Your task to perform on an android device: turn off location Image 0: 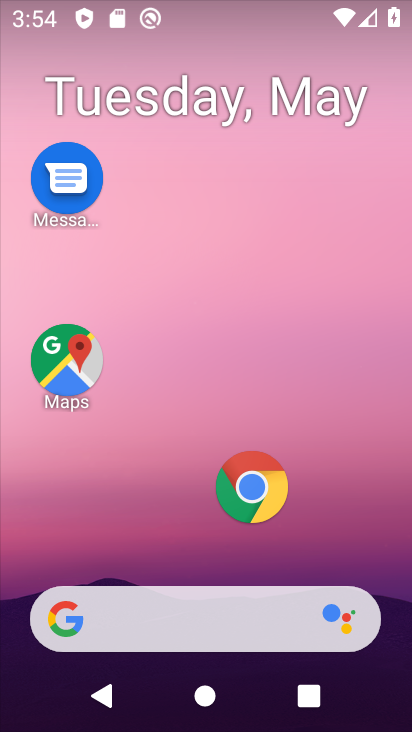
Step 0: drag from (314, 567) to (236, 709)
Your task to perform on an android device: turn off location Image 1: 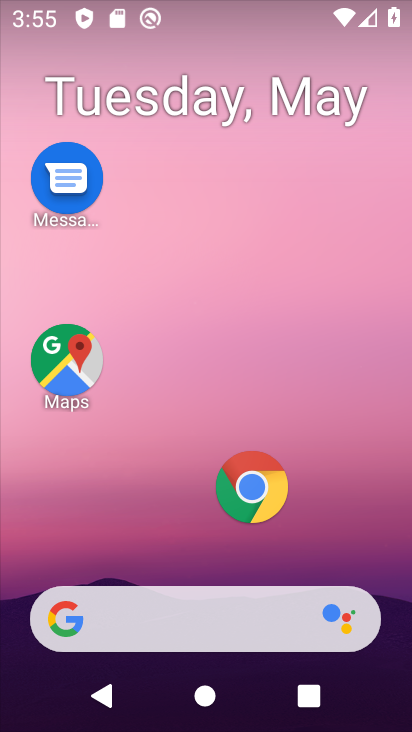
Step 1: drag from (211, 560) to (110, 24)
Your task to perform on an android device: turn off location Image 2: 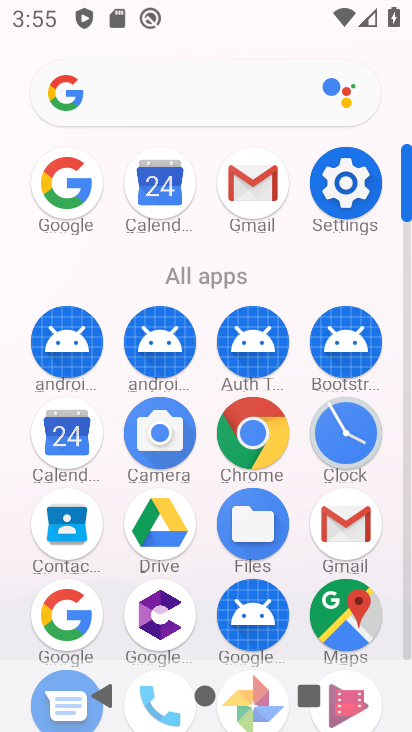
Step 2: click (350, 171)
Your task to perform on an android device: turn off location Image 3: 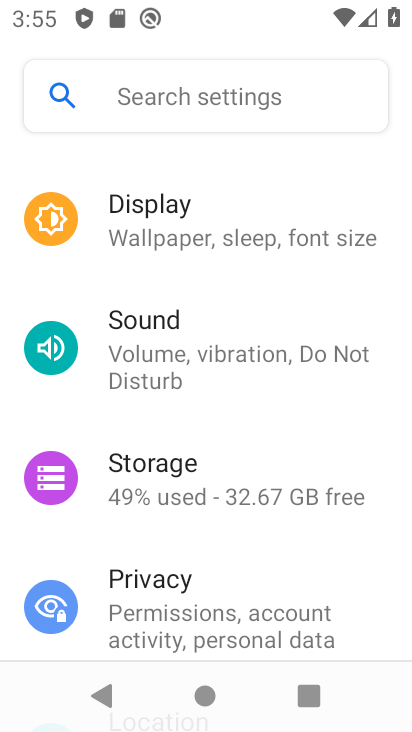
Step 3: drag from (185, 516) to (204, 15)
Your task to perform on an android device: turn off location Image 4: 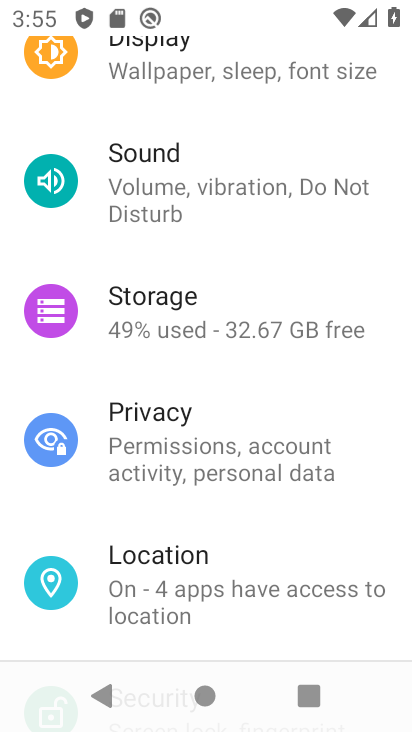
Step 4: click (155, 583)
Your task to perform on an android device: turn off location Image 5: 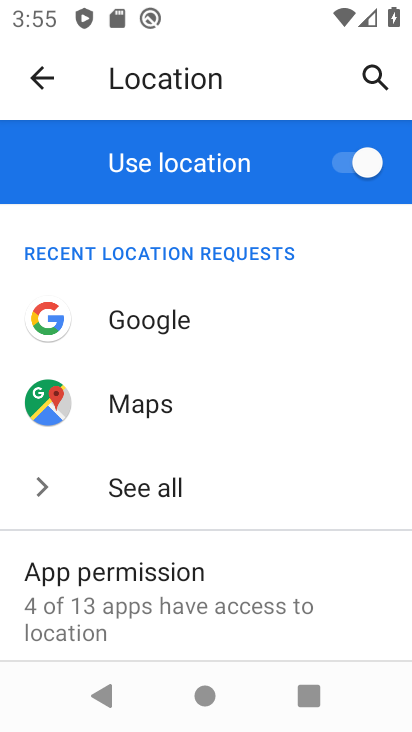
Step 5: click (330, 160)
Your task to perform on an android device: turn off location Image 6: 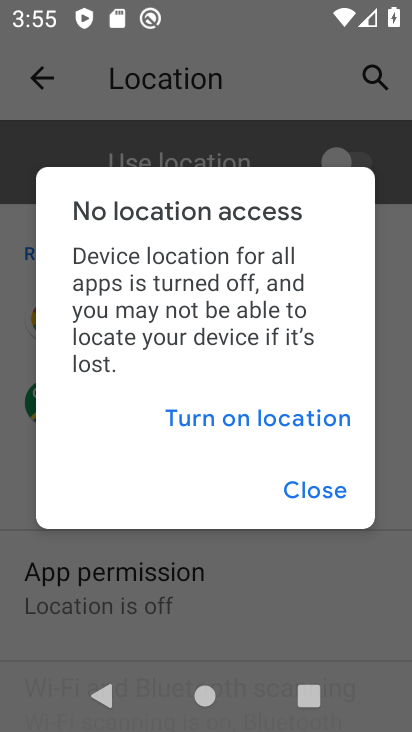
Step 6: click (322, 497)
Your task to perform on an android device: turn off location Image 7: 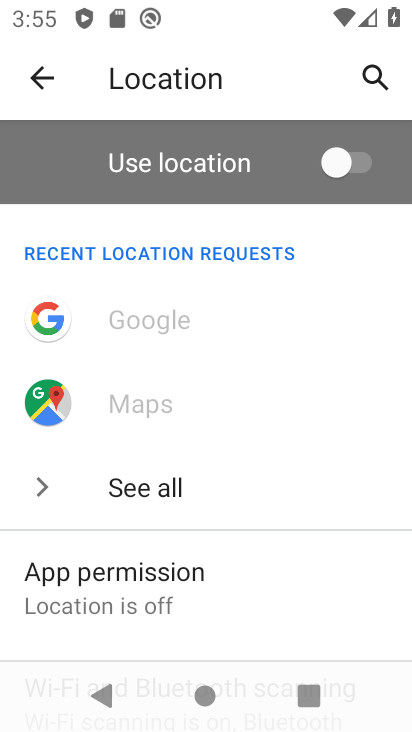
Step 7: task complete